Your task to perform on an android device: turn off notifications settings in the gmail app Image 0: 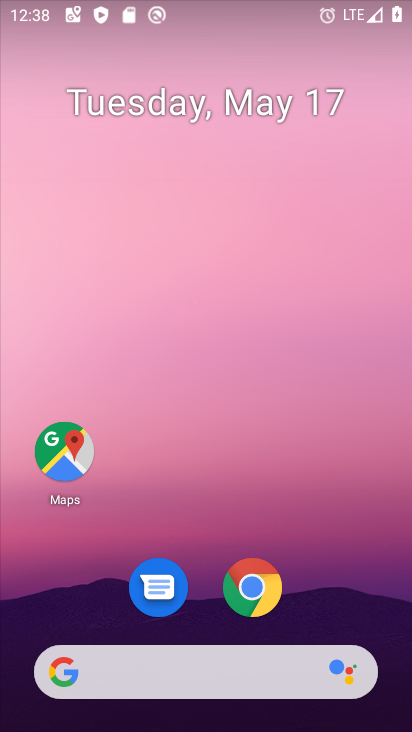
Step 0: drag from (379, 645) to (216, 85)
Your task to perform on an android device: turn off notifications settings in the gmail app Image 1: 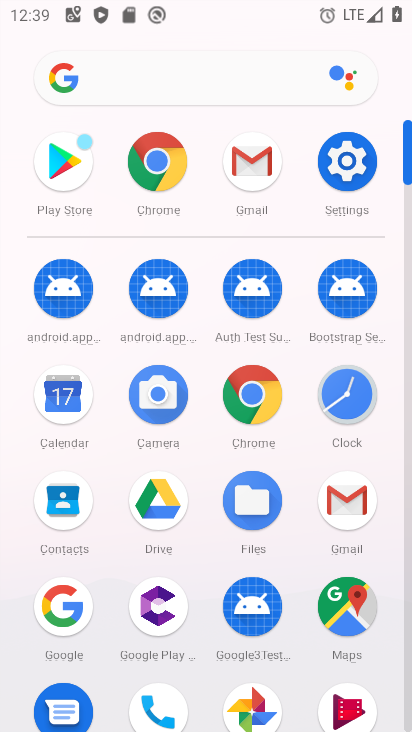
Step 1: click (342, 503)
Your task to perform on an android device: turn off notifications settings in the gmail app Image 2: 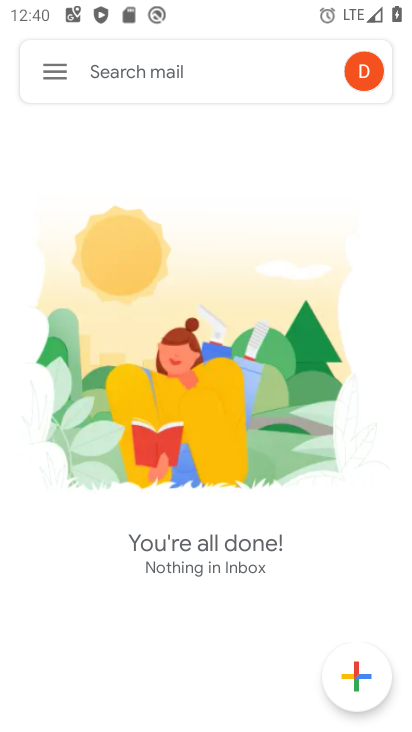
Step 2: click (57, 58)
Your task to perform on an android device: turn off notifications settings in the gmail app Image 3: 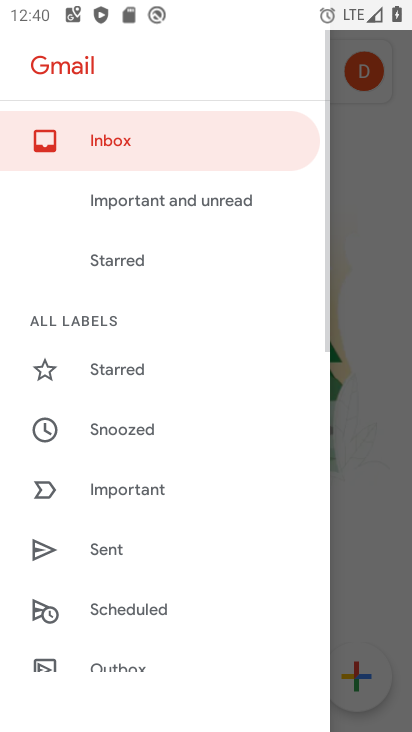
Step 3: drag from (181, 595) to (243, 150)
Your task to perform on an android device: turn off notifications settings in the gmail app Image 4: 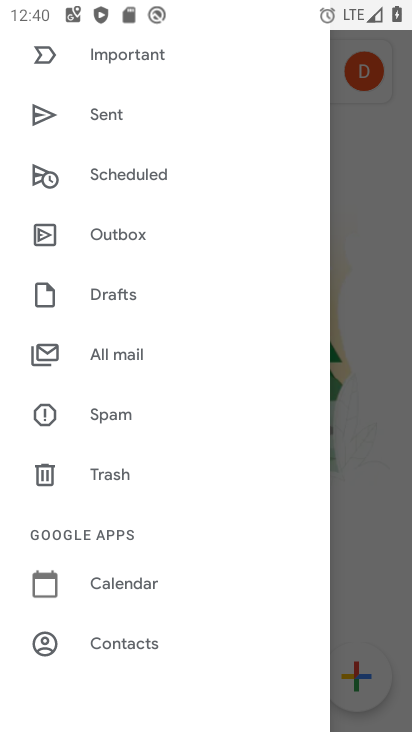
Step 4: drag from (146, 630) to (185, 133)
Your task to perform on an android device: turn off notifications settings in the gmail app Image 5: 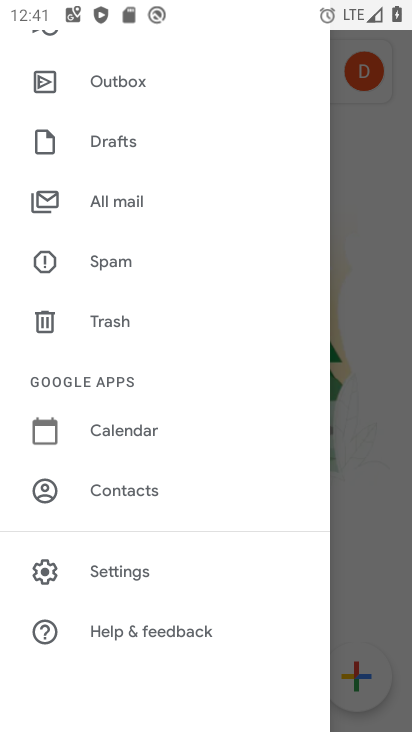
Step 5: click (105, 589)
Your task to perform on an android device: turn off notifications settings in the gmail app Image 6: 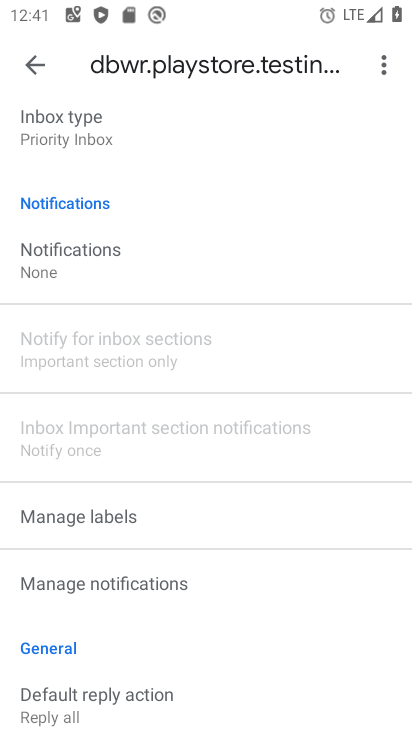
Step 6: task complete